Your task to perform on an android device: toggle wifi Image 0: 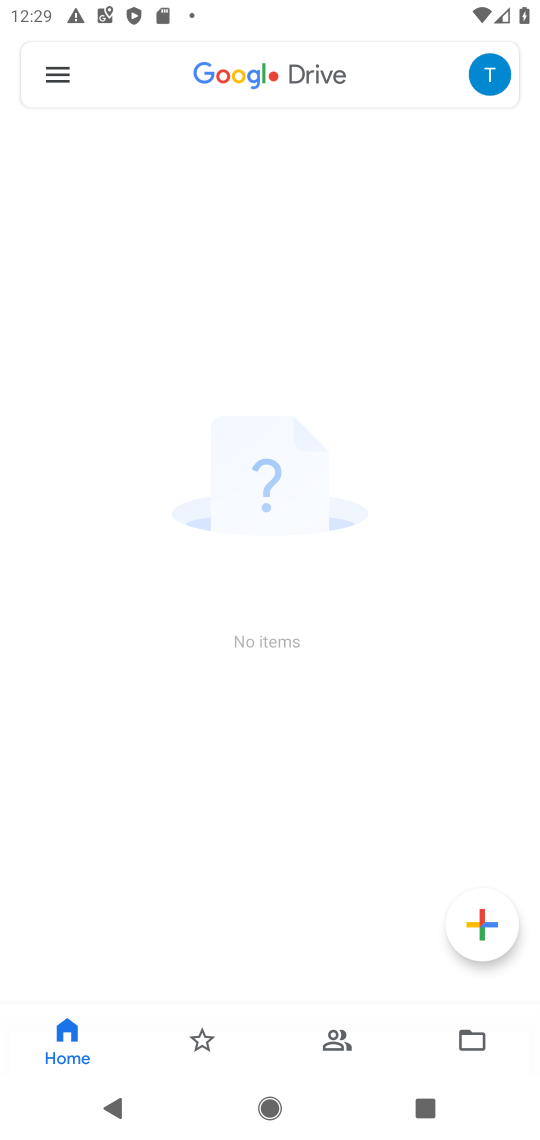
Step 0: press home button
Your task to perform on an android device: toggle wifi Image 1: 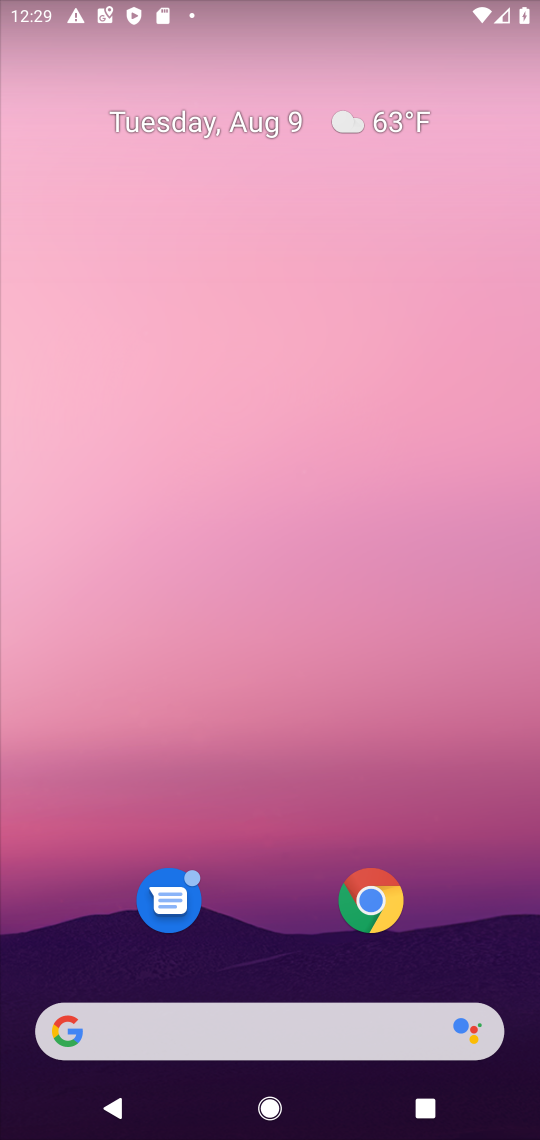
Step 1: drag from (270, 903) to (289, 235)
Your task to perform on an android device: toggle wifi Image 2: 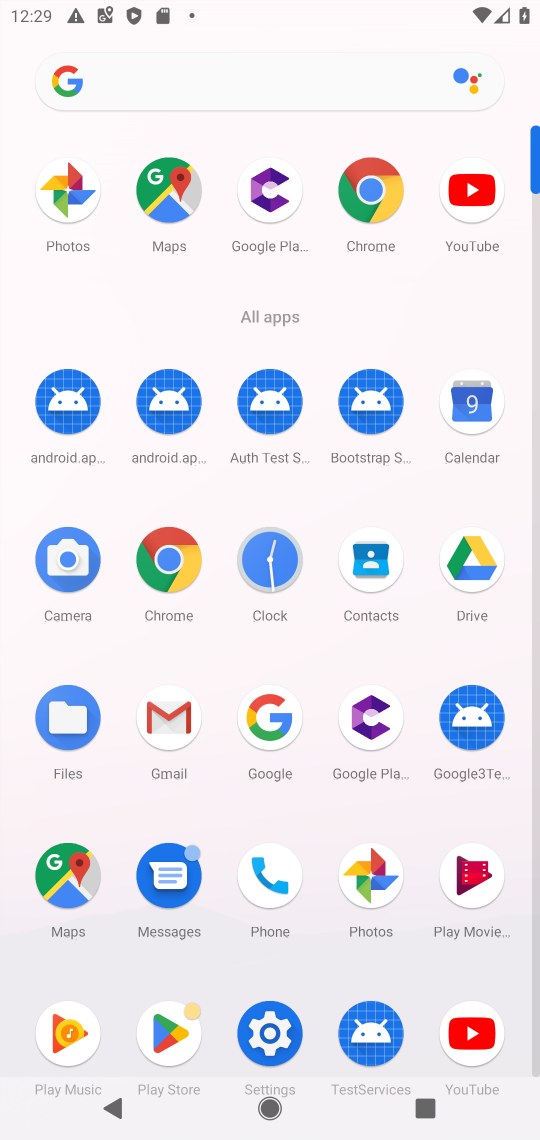
Step 2: click (268, 1043)
Your task to perform on an android device: toggle wifi Image 3: 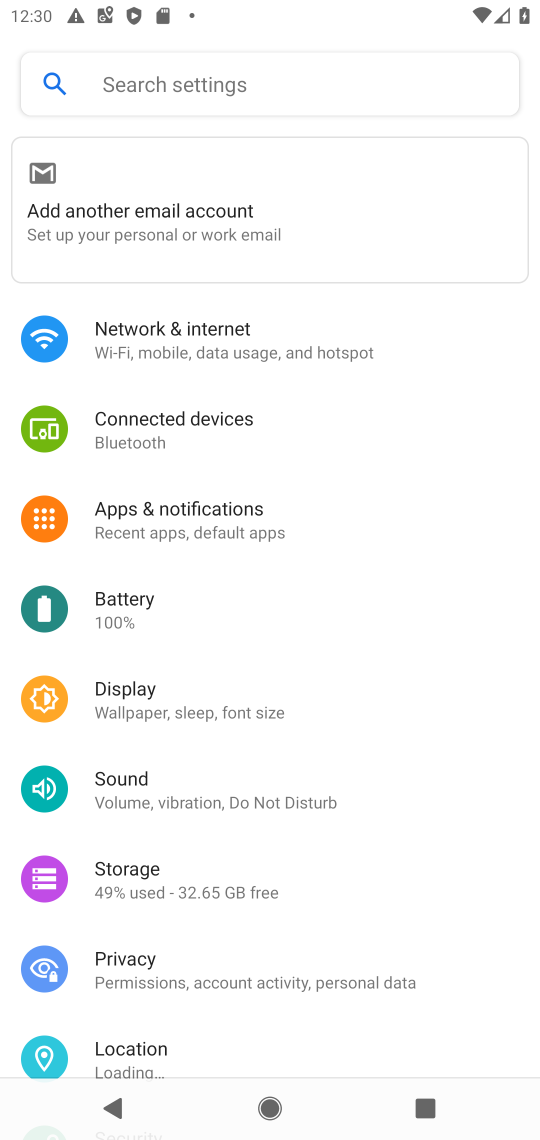
Step 3: drag from (463, 895) to (481, 621)
Your task to perform on an android device: toggle wifi Image 4: 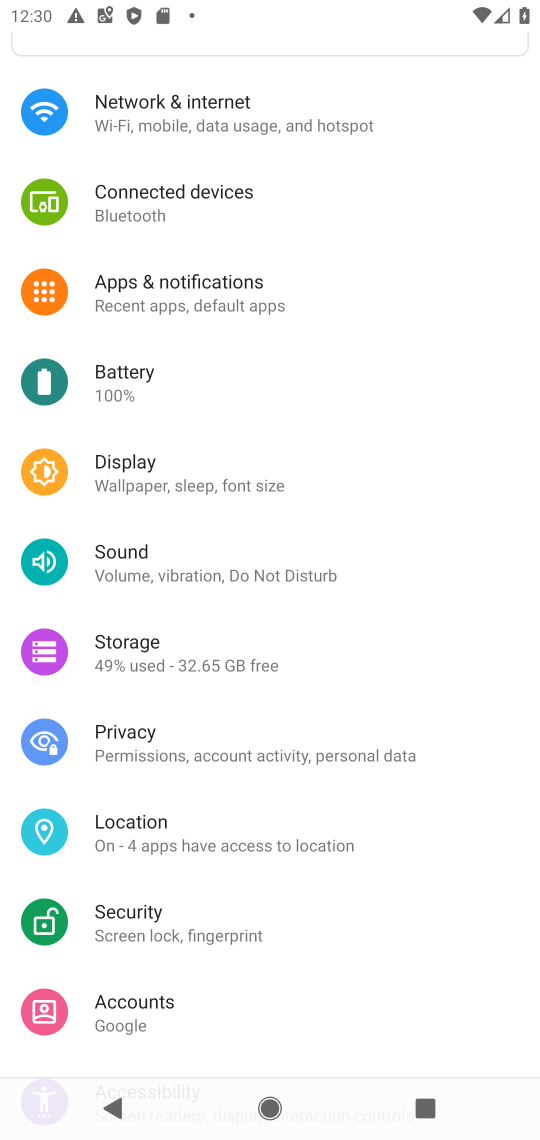
Step 4: drag from (437, 914) to (456, 594)
Your task to perform on an android device: toggle wifi Image 5: 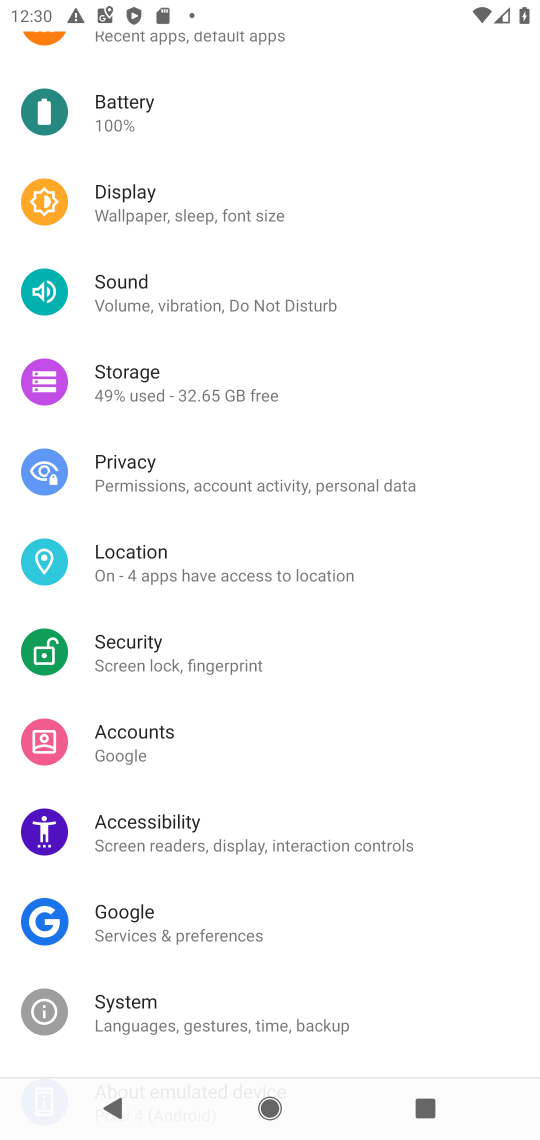
Step 5: drag from (429, 763) to (426, 485)
Your task to perform on an android device: toggle wifi Image 6: 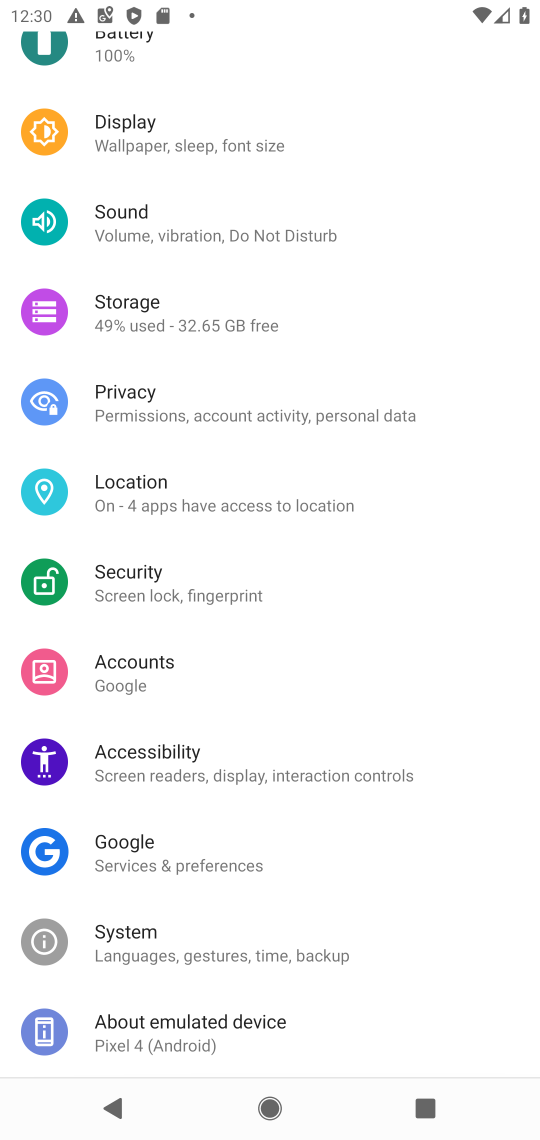
Step 6: drag from (465, 433) to (464, 578)
Your task to perform on an android device: toggle wifi Image 7: 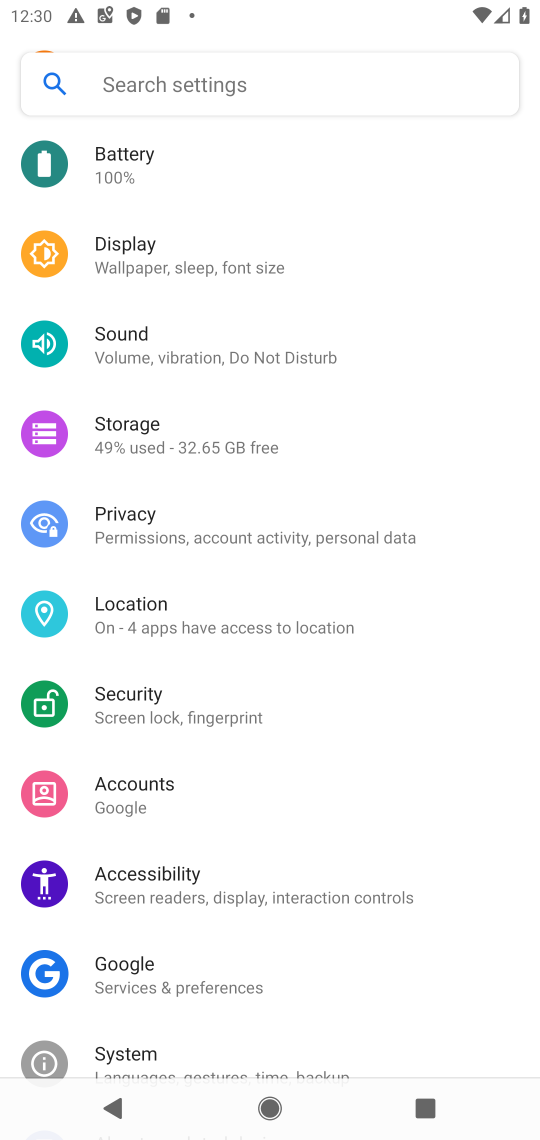
Step 7: drag from (486, 350) to (483, 548)
Your task to perform on an android device: toggle wifi Image 8: 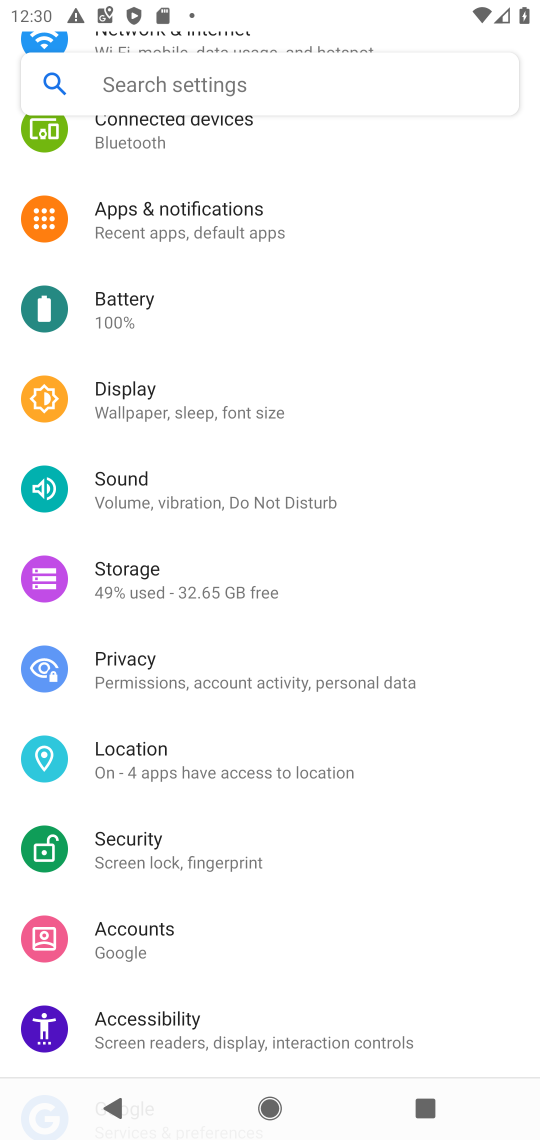
Step 8: drag from (492, 259) to (462, 533)
Your task to perform on an android device: toggle wifi Image 9: 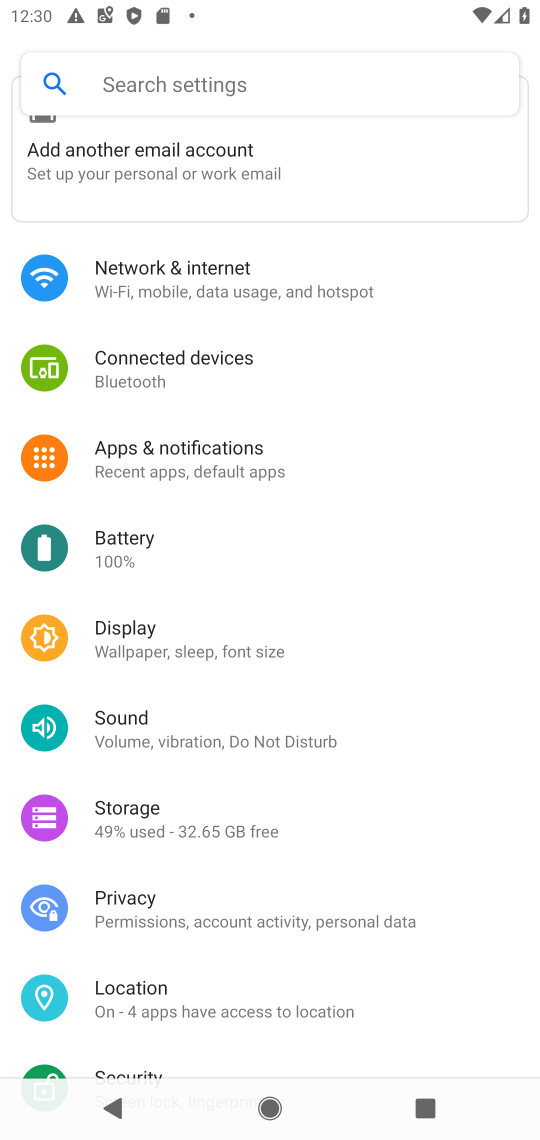
Step 9: drag from (467, 273) to (464, 477)
Your task to perform on an android device: toggle wifi Image 10: 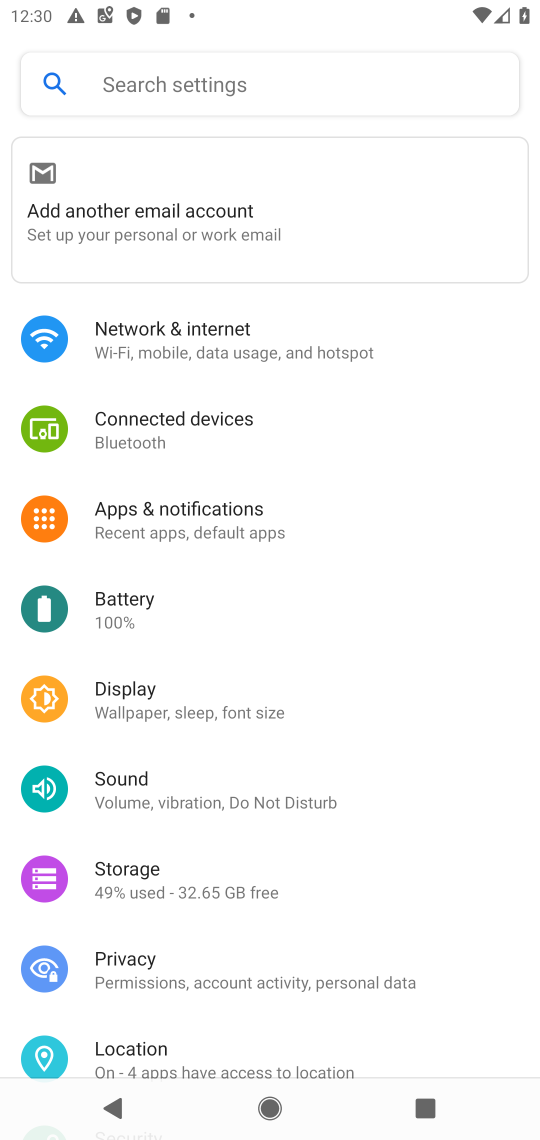
Step 10: click (360, 345)
Your task to perform on an android device: toggle wifi Image 11: 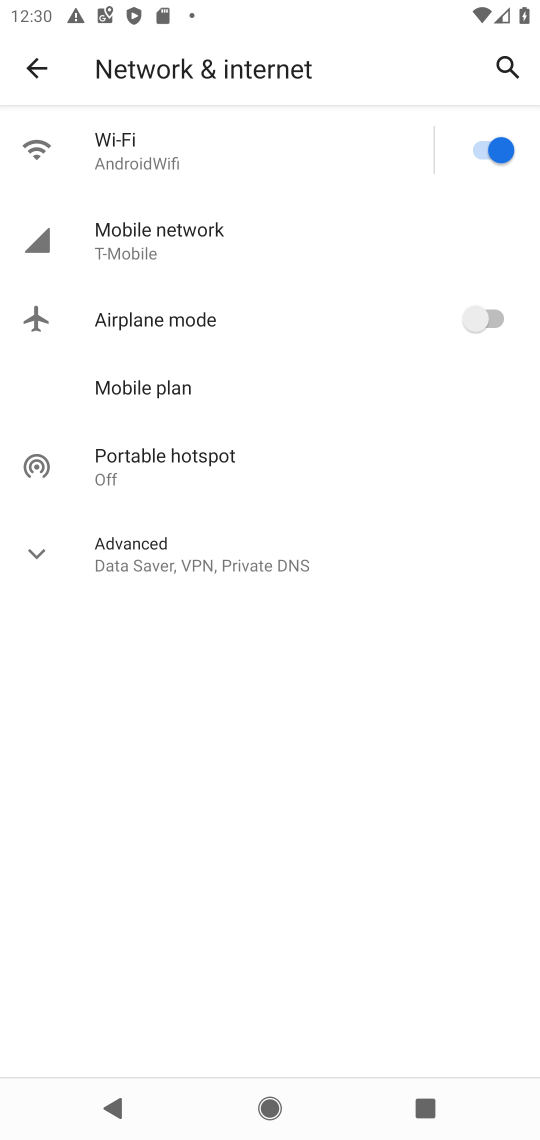
Step 11: click (502, 160)
Your task to perform on an android device: toggle wifi Image 12: 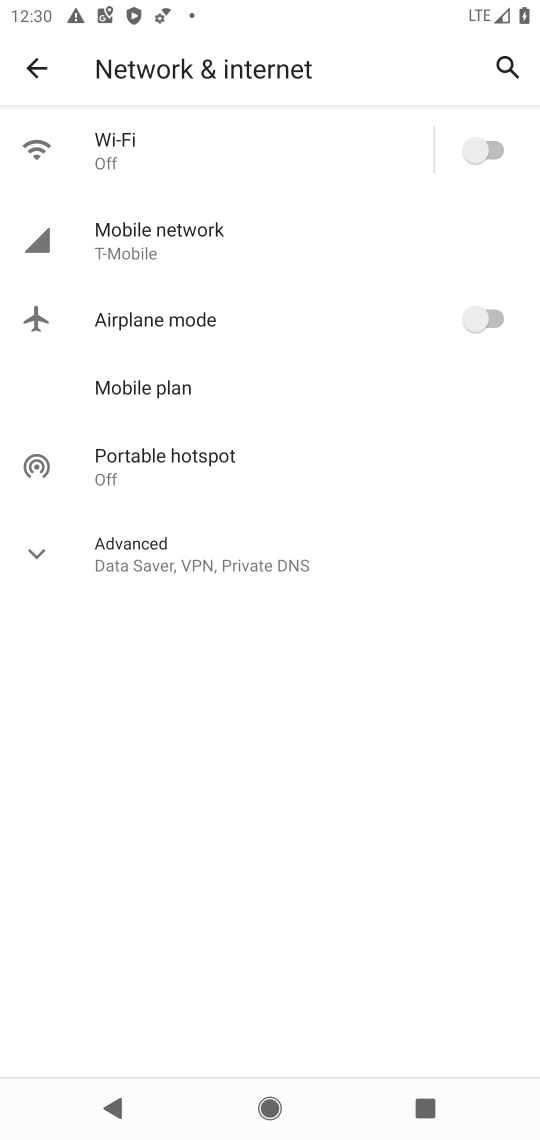
Step 12: task complete